Your task to perform on an android device: Open the phone app and click the voicemail tab. Image 0: 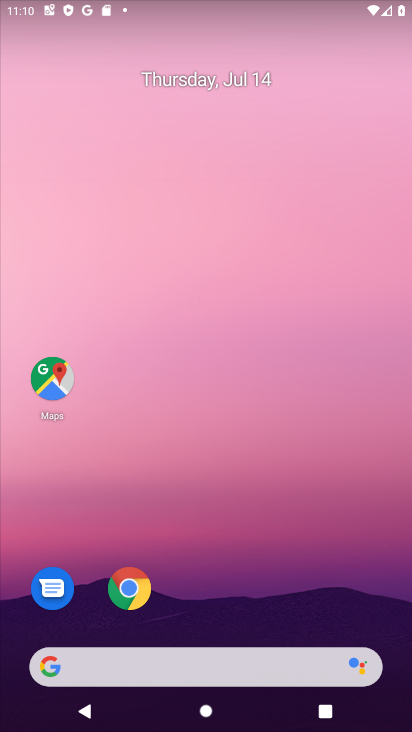
Step 0: drag from (155, 665) to (295, 23)
Your task to perform on an android device: Open the phone app and click the voicemail tab. Image 1: 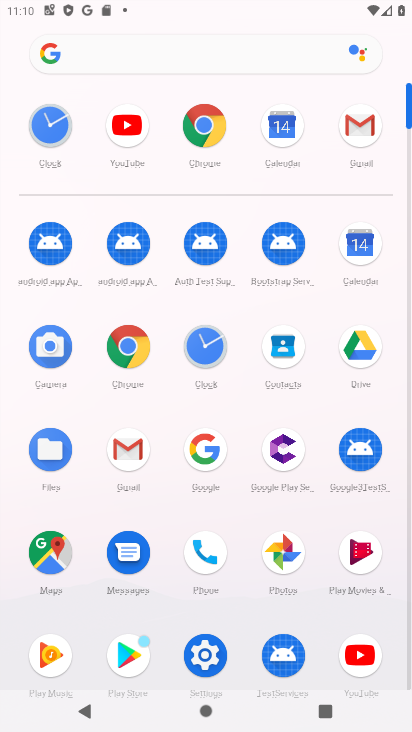
Step 1: click (211, 561)
Your task to perform on an android device: Open the phone app and click the voicemail tab. Image 2: 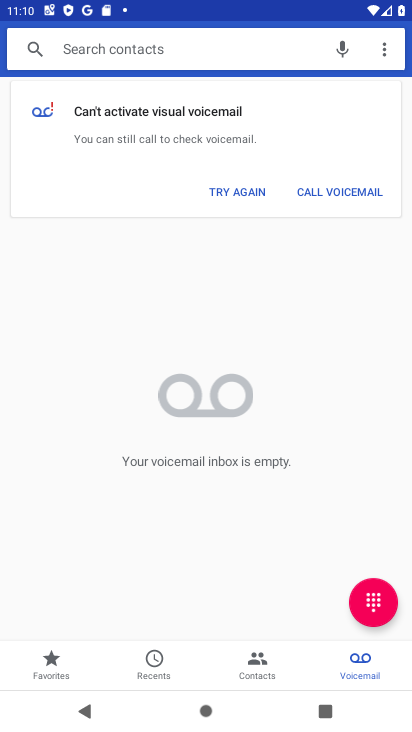
Step 2: click (357, 670)
Your task to perform on an android device: Open the phone app and click the voicemail tab. Image 3: 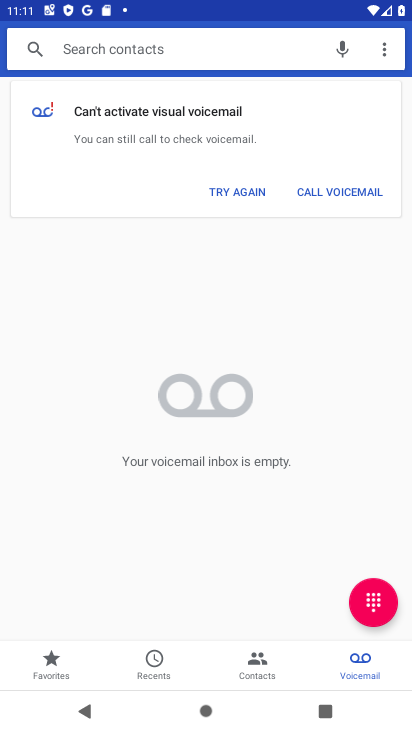
Step 3: task complete